Your task to perform on an android device: Search for corsair k70 on newegg.com, select the first entry, and add it to the cart. Image 0: 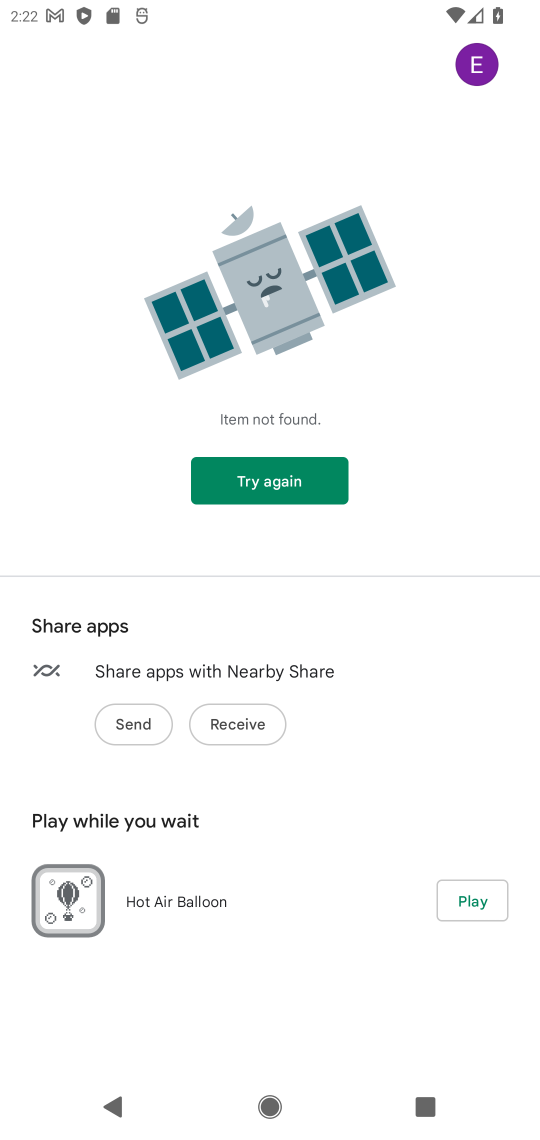
Step 0: press home button
Your task to perform on an android device: Search for corsair k70 on newegg.com, select the first entry, and add it to the cart. Image 1: 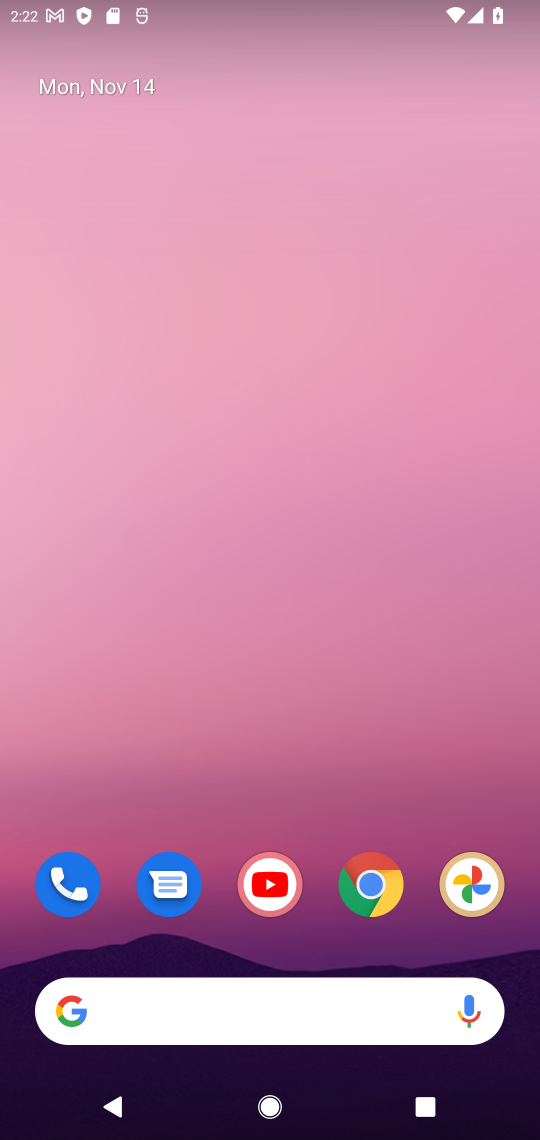
Step 1: click (372, 875)
Your task to perform on an android device: Search for corsair k70 on newegg.com, select the first entry, and add it to the cart. Image 2: 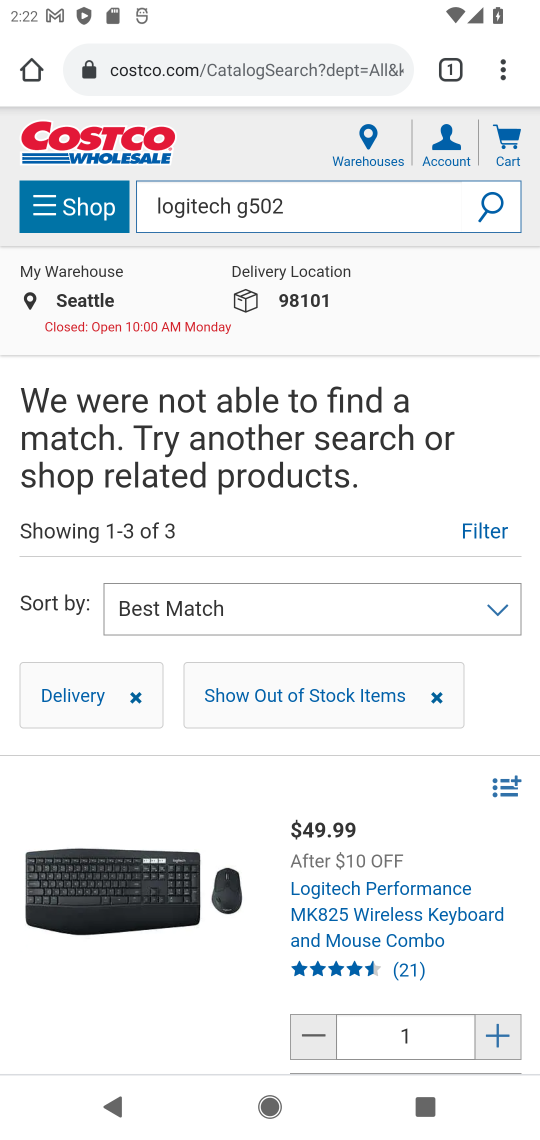
Step 2: click (200, 67)
Your task to perform on an android device: Search for corsair k70 on newegg.com, select the first entry, and add it to the cart. Image 3: 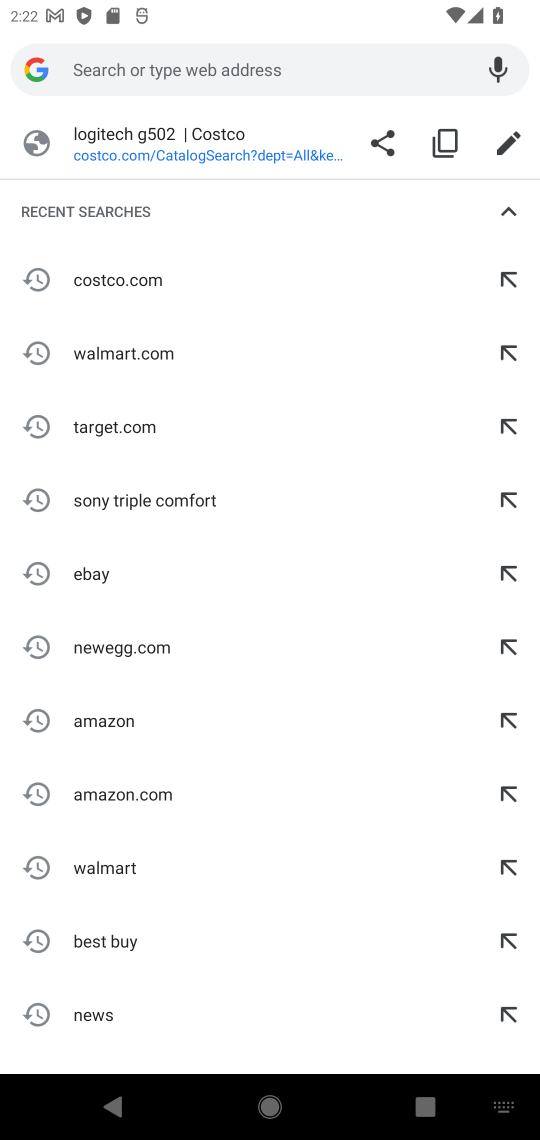
Step 3: click (137, 637)
Your task to perform on an android device: Search for corsair k70 on newegg.com, select the first entry, and add it to the cart. Image 4: 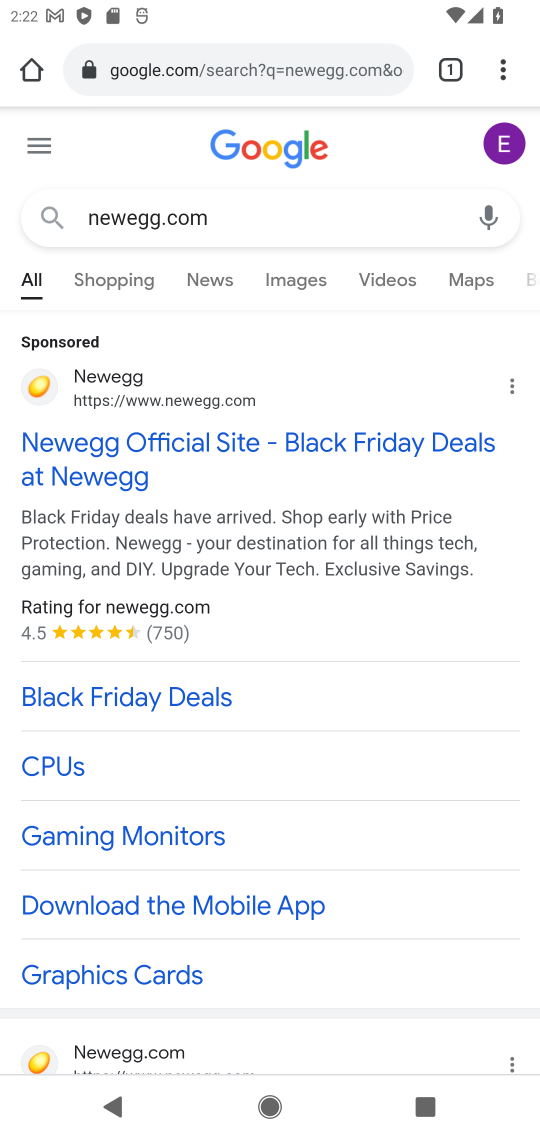
Step 4: click (193, 403)
Your task to perform on an android device: Search for corsair k70 on newegg.com, select the first entry, and add it to the cart. Image 5: 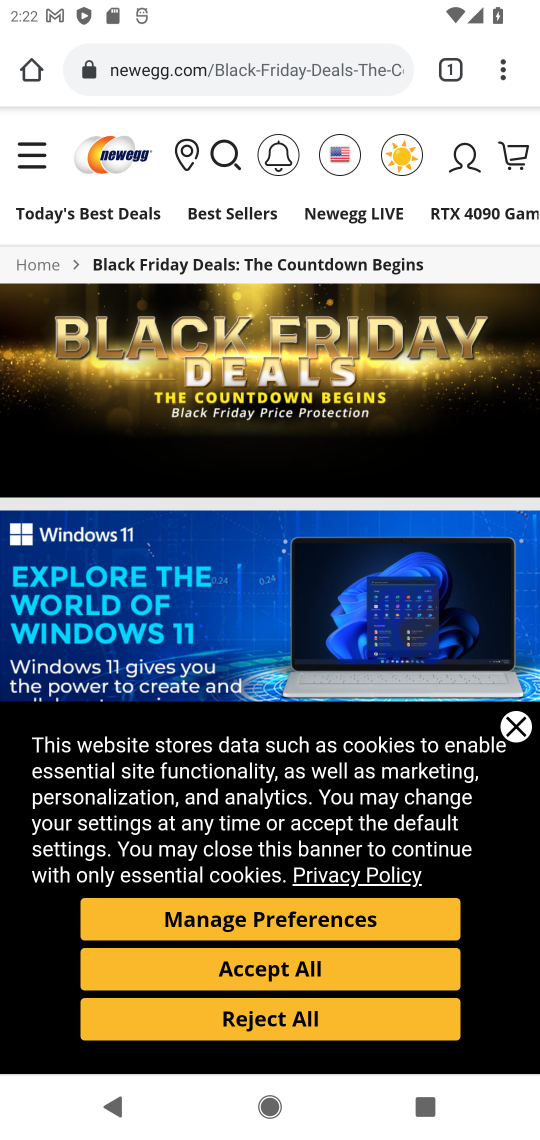
Step 5: click (233, 153)
Your task to perform on an android device: Search for corsair k70 on newegg.com, select the first entry, and add it to the cart. Image 6: 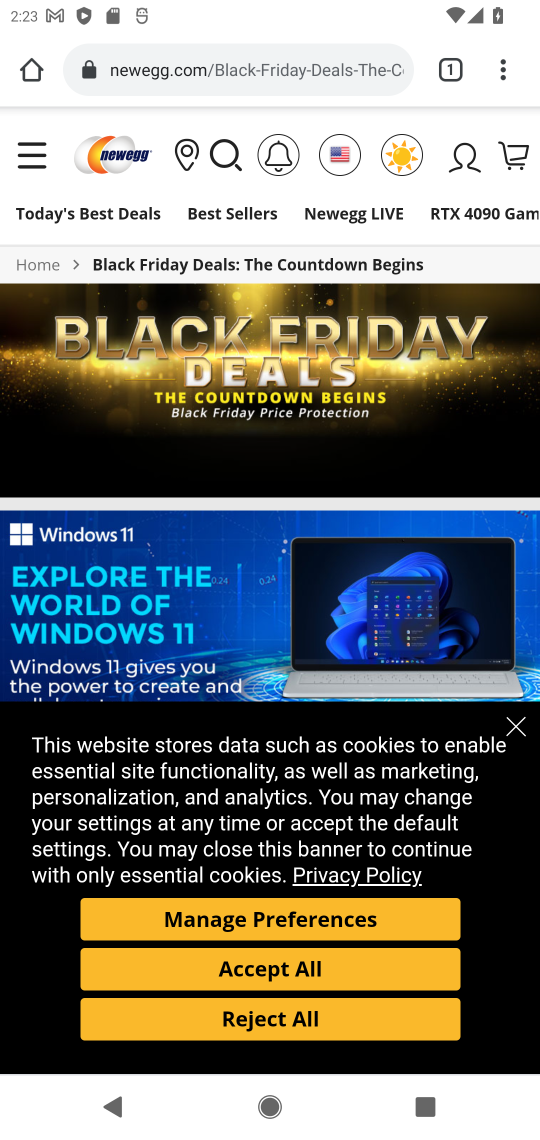
Step 6: click (306, 967)
Your task to perform on an android device: Search for corsair k70 on newegg.com, select the first entry, and add it to the cart. Image 7: 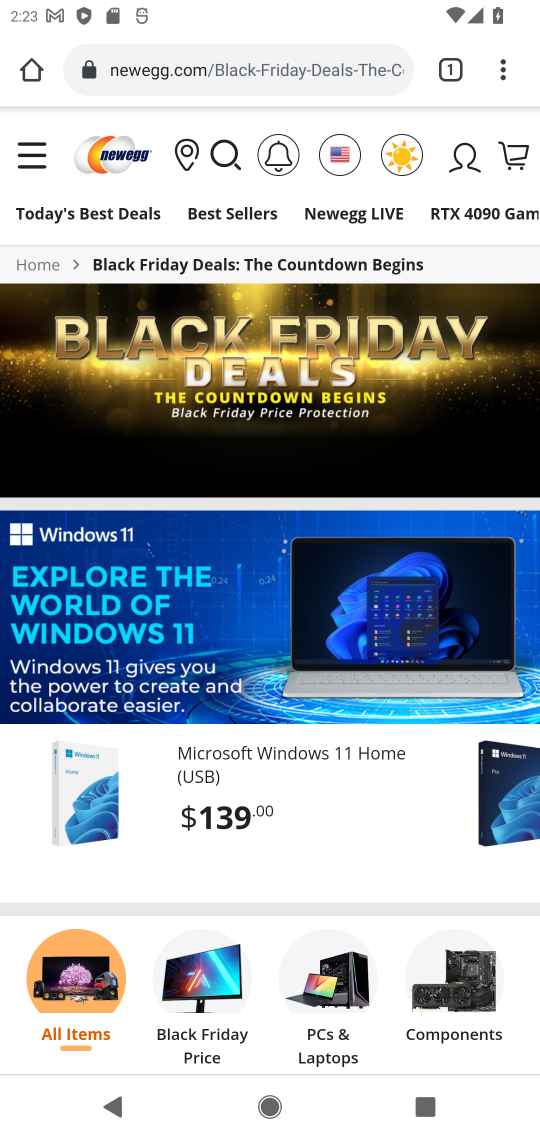
Step 7: click (224, 149)
Your task to perform on an android device: Search for corsair k70 on newegg.com, select the first entry, and add it to the cart. Image 8: 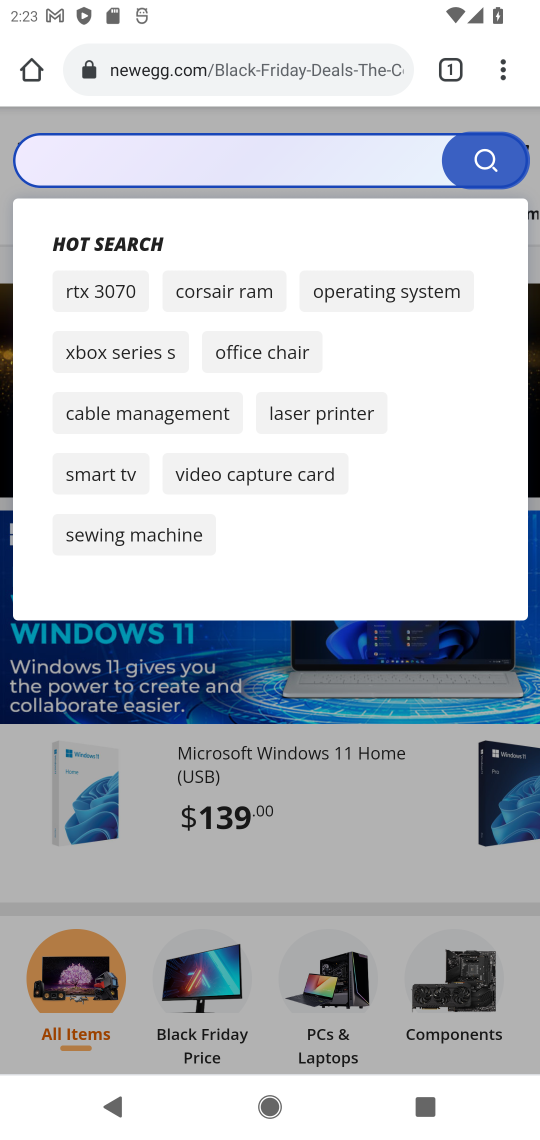
Step 8: click (224, 149)
Your task to perform on an android device: Search for corsair k70 on newegg.com, select the first entry, and add it to the cart. Image 9: 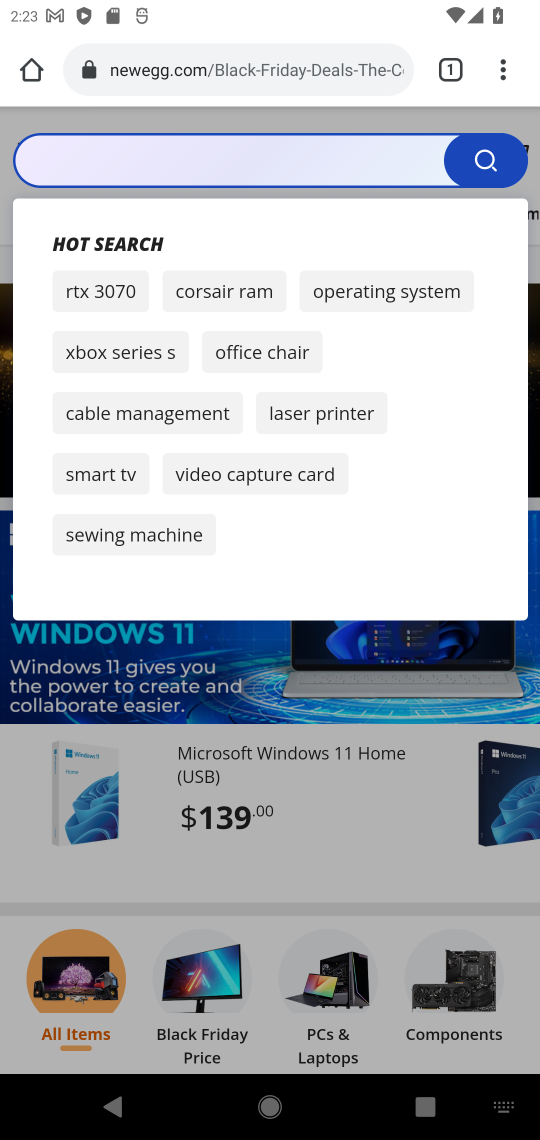
Step 9: press enter
Your task to perform on an android device: Search for corsair k70 on newegg.com, select the first entry, and add it to the cart. Image 10: 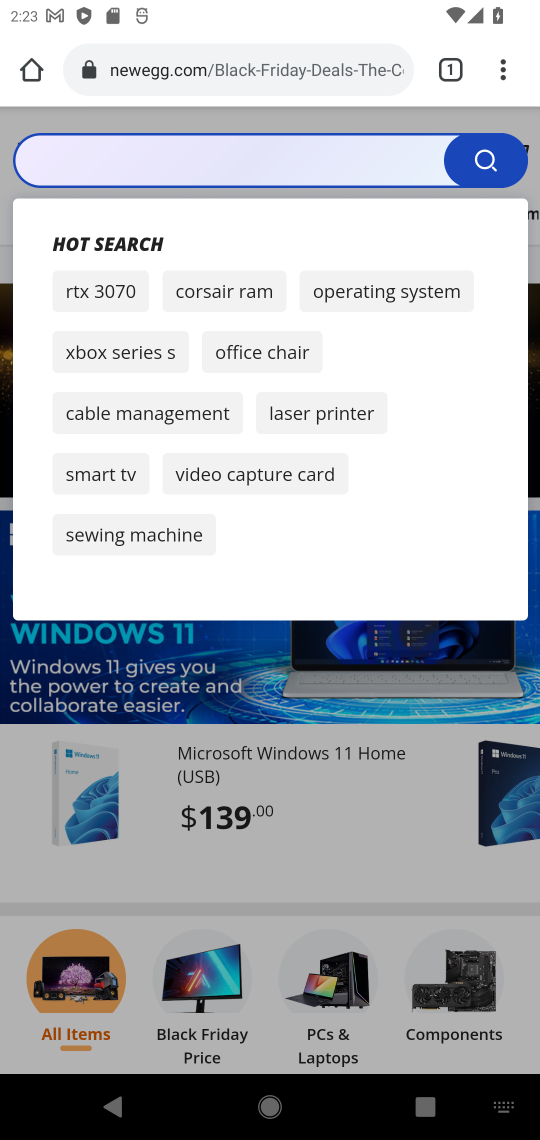
Step 10: type "corsair k70"
Your task to perform on an android device: Search for corsair k70 on newegg.com, select the first entry, and add it to the cart. Image 11: 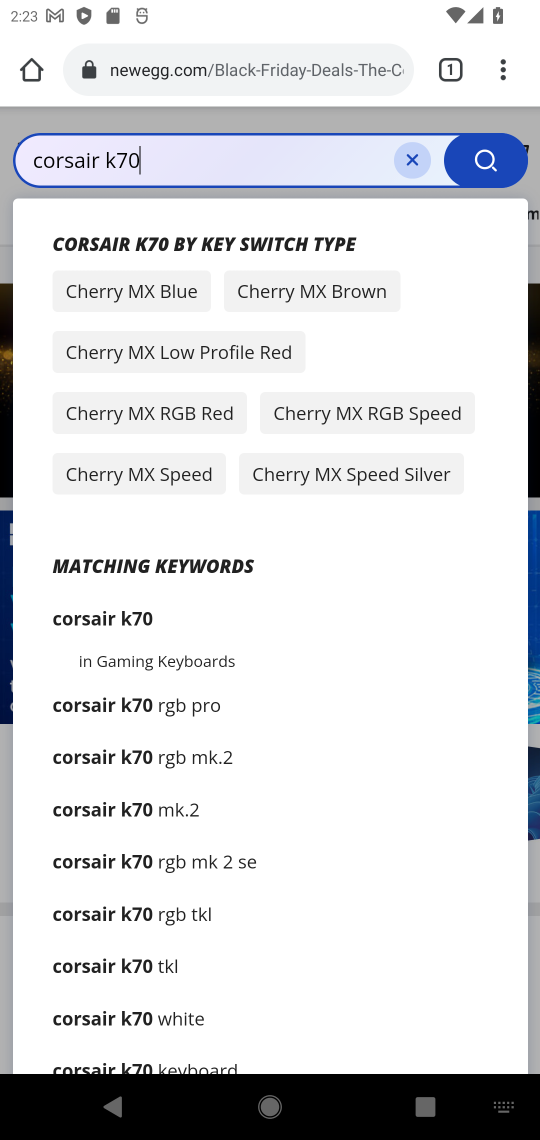
Step 11: click (122, 610)
Your task to perform on an android device: Search for corsair k70 on newegg.com, select the first entry, and add it to the cart. Image 12: 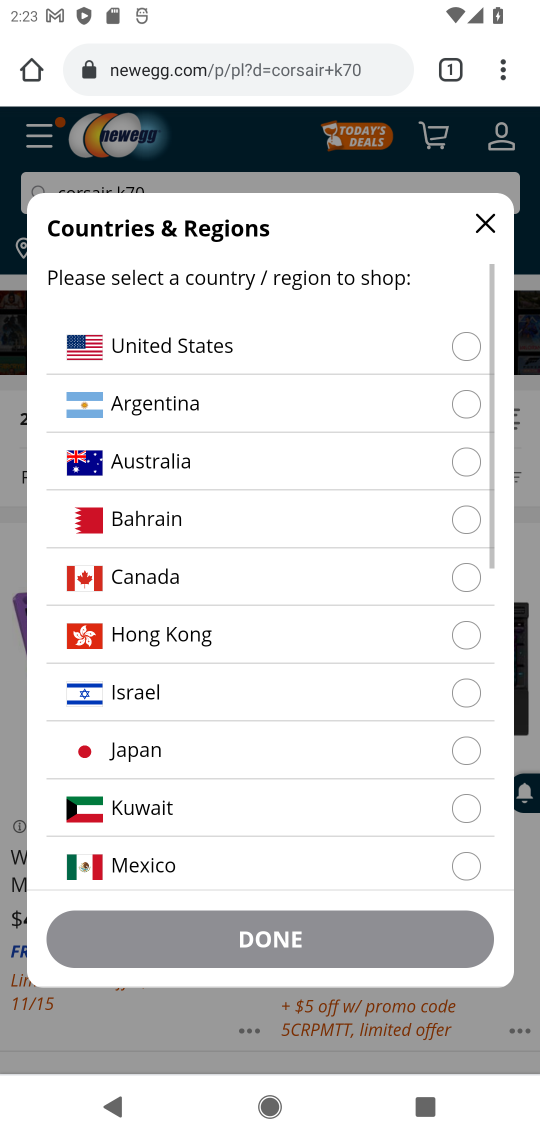
Step 12: click (473, 361)
Your task to perform on an android device: Search for corsair k70 on newegg.com, select the first entry, and add it to the cart. Image 13: 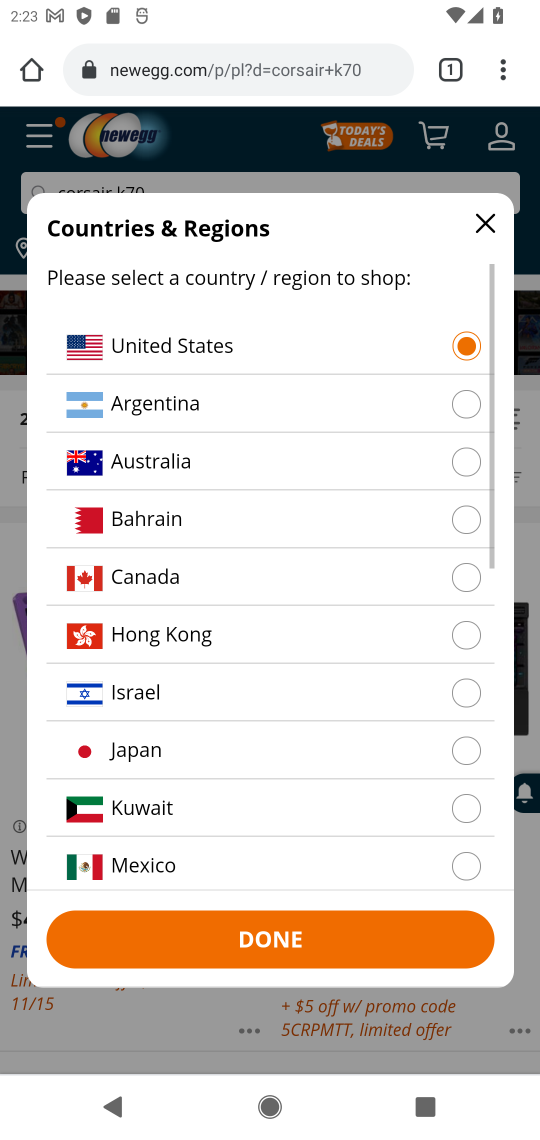
Step 13: click (374, 699)
Your task to perform on an android device: Search for corsair k70 on newegg.com, select the first entry, and add it to the cart. Image 14: 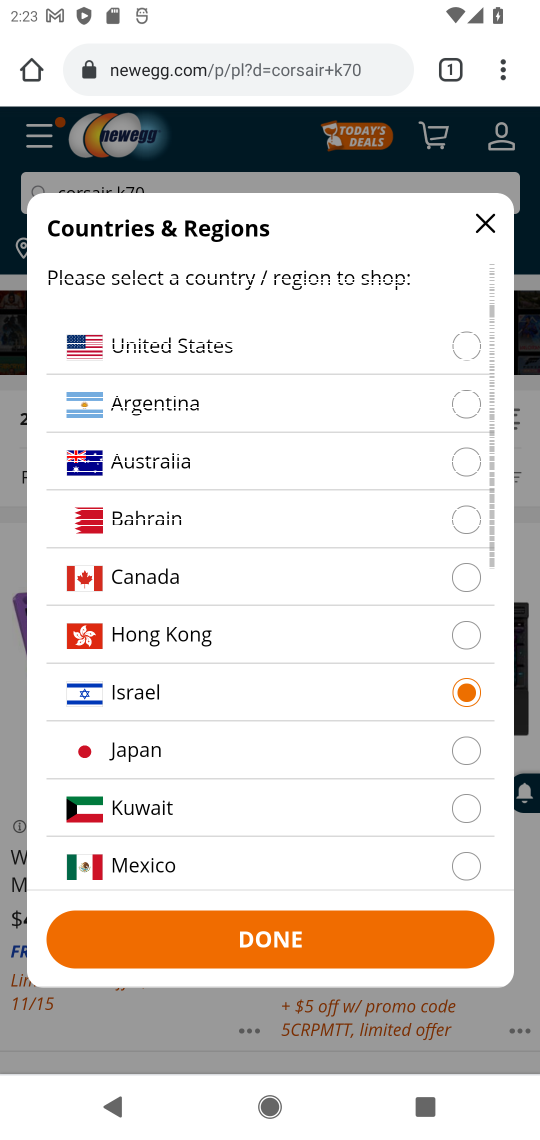
Step 14: click (466, 338)
Your task to perform on an android device: Search for corsair k70 on newegg.com, select the first entry, and add it to the cart. Image 15: 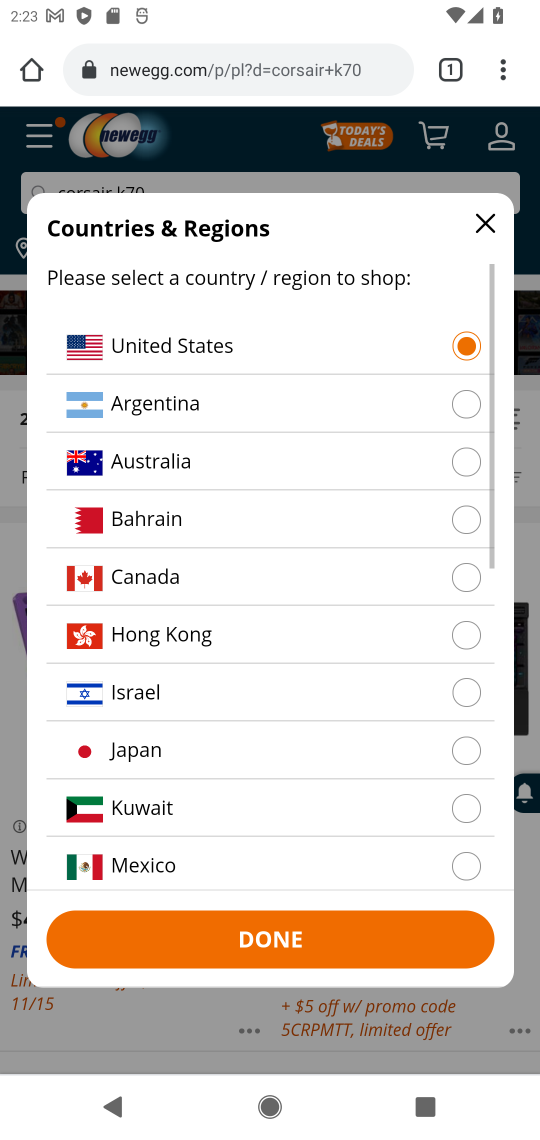
Step 15: click (395, 941)
Your task to perform on an android device: Search for corsair k70 on newegg.com, select the first entry, and add it to the cart. Image 16: 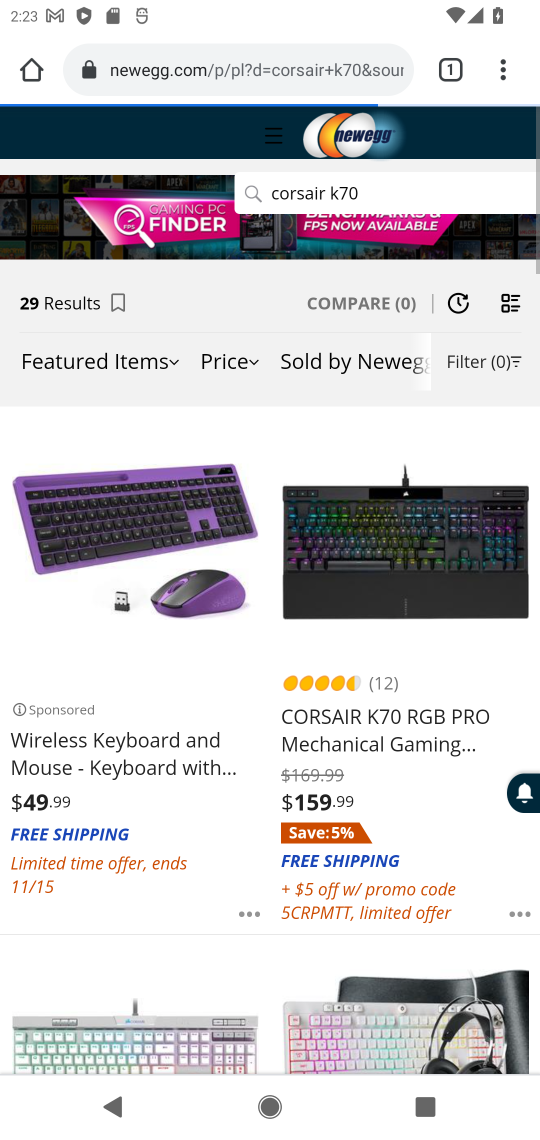
Step 16: click (418, 676)
Your task to perform on an android device: Search for corsair k70 on newegg.com, select the first entry, and add it to the cart. Image 17: 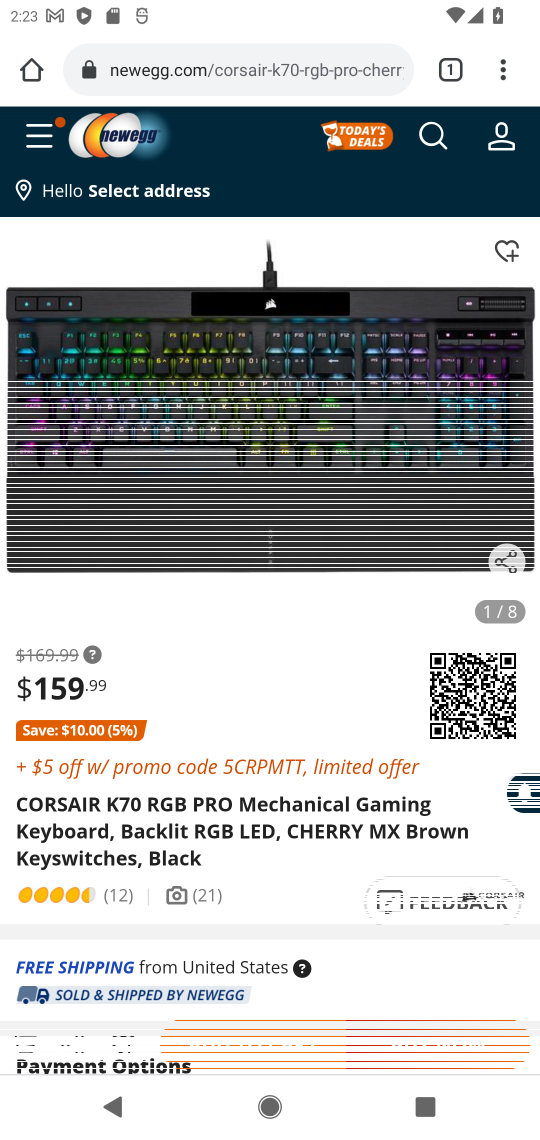
Step 17: click (256, 1041)
Your task to perform on an android device: Search for corsair k70 on newegg.com, select the first entry, and add it to the cart. Image 18: 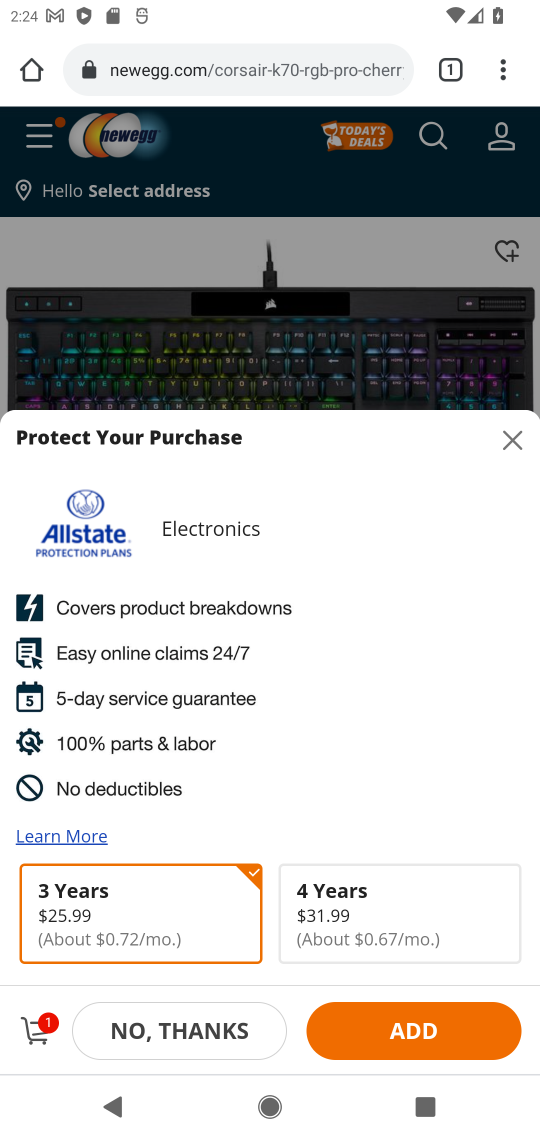
Step 18: task complete